Your task to perform on an android device: change notifications settings Image 0: 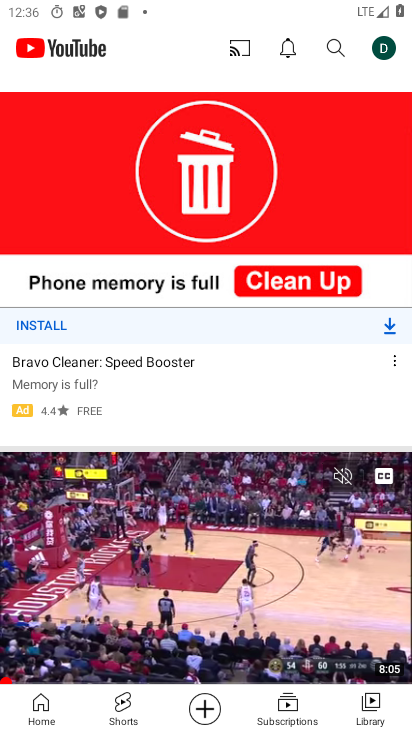
Step 0: press home button
Your task to perform on an android device: change notifications settings Image 1: 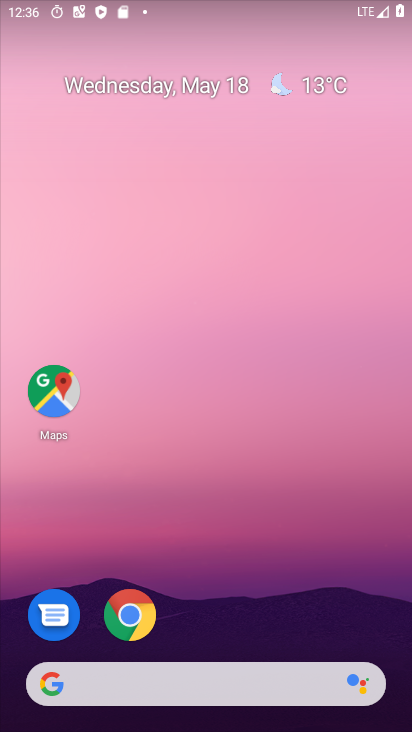
Step 1: drag from (162, 674) to (299, 211)
Your task to perform on an android device: change notifications settings Image 2: 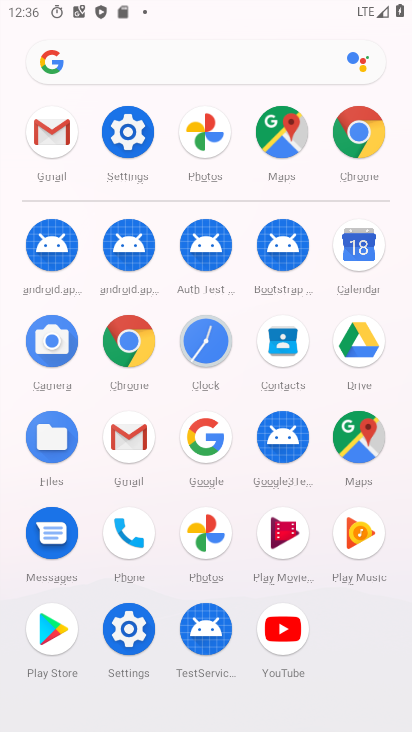
Step 2: click (130, 145)
Your task to perform on an android device: change notifications settings Image 3: 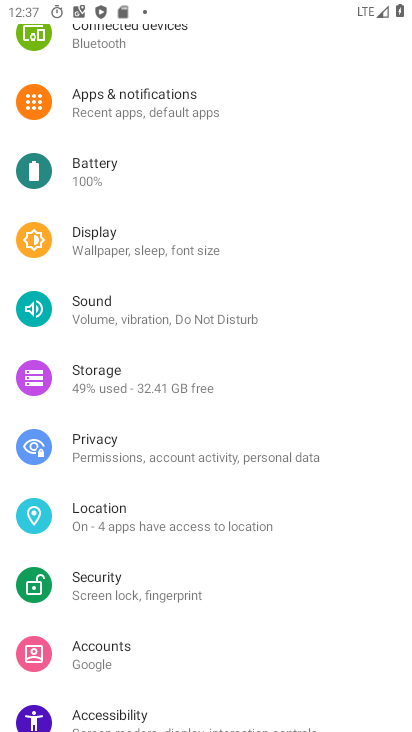
Step 3: click (174, 104)
Your task to perform on an android device: change notifications settings Image 4: 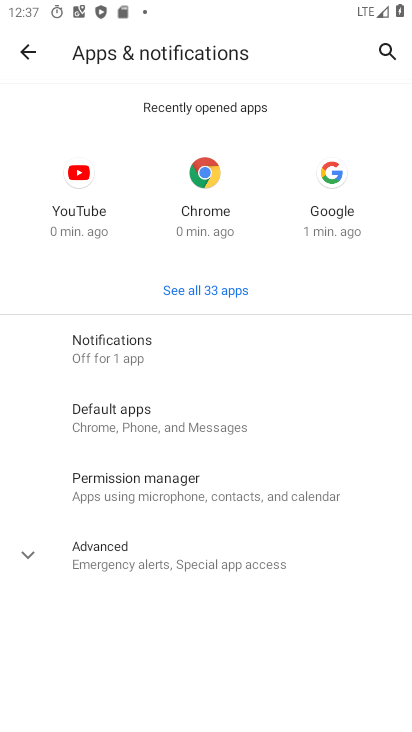
Step 4: click (136, 357)
Your task to perform on an android device: change notifications settings Image 5: 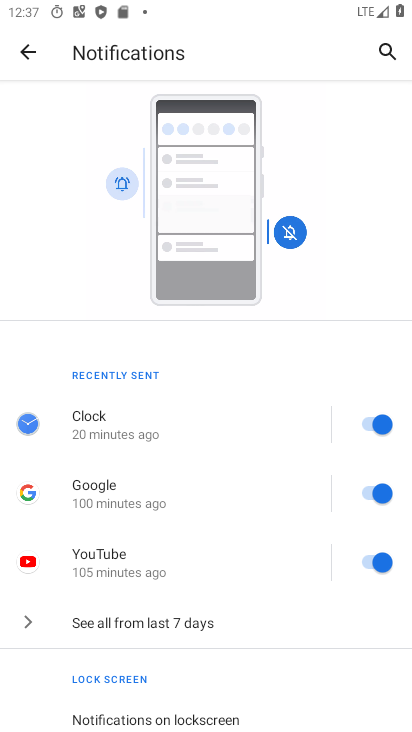
Step 5: click (367, 422)
Your task to perform on an android device: change notifications settings Image 6: 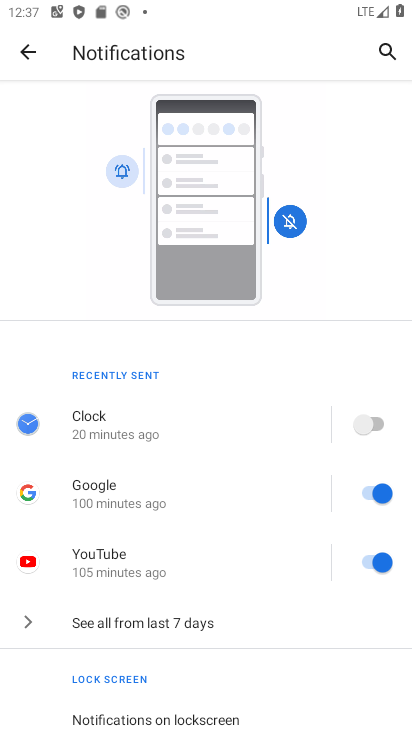
Step 6: task complete